Your task to perform on an android device: Open Maps and search for coffee Image 0: 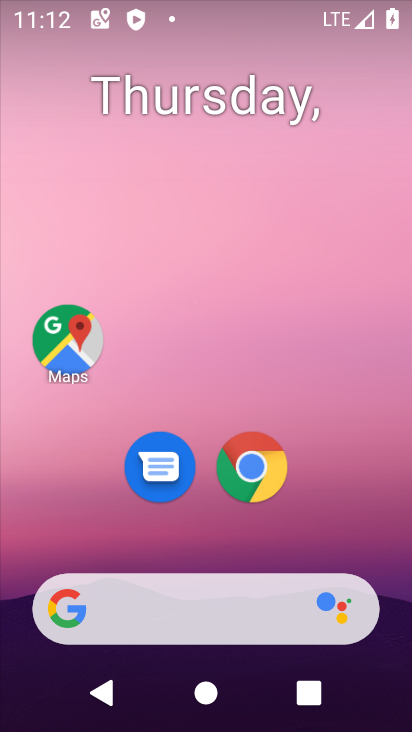
Step 0: click (73, 344)
Your task to perform on an android device: Open Maps and search for coffee Image 1: 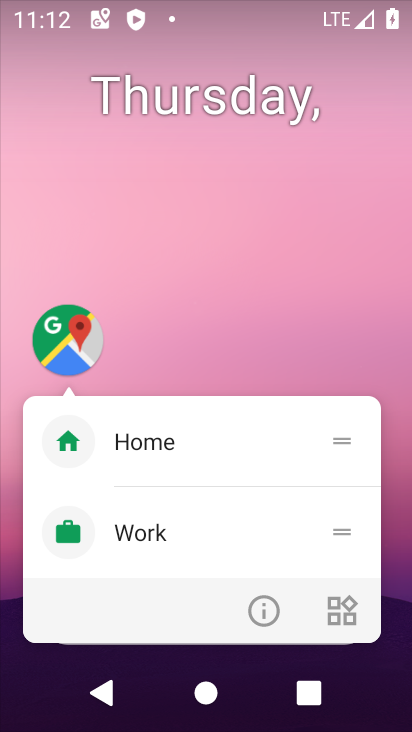
Step 1: click (69, 341)
Your task to perform on an android device: Open Maps and search for coffee Image 2: 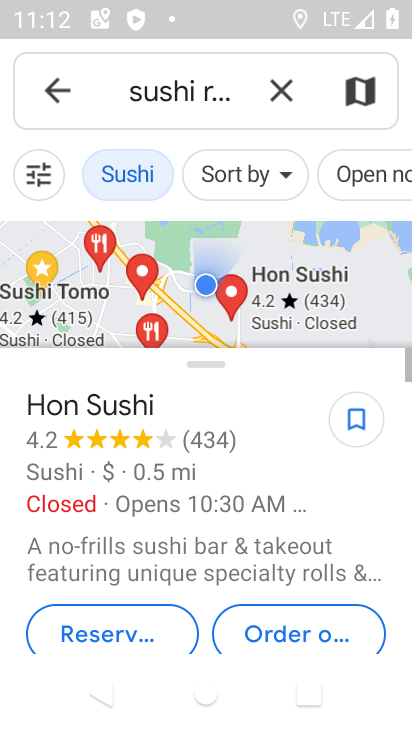
Step 2: click (282, 93)
Your task to perform on an android device: Open Maps and search for coffee Image 3: 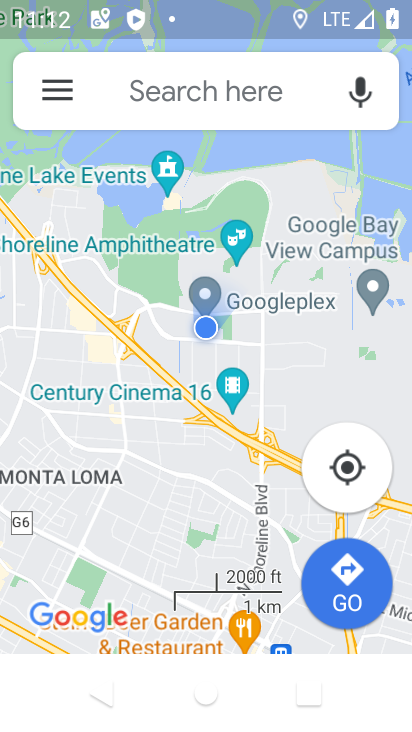
Step 3: click (150, 96)
Your task to perform on an android device: Open Maps and search for coffee Image 4: 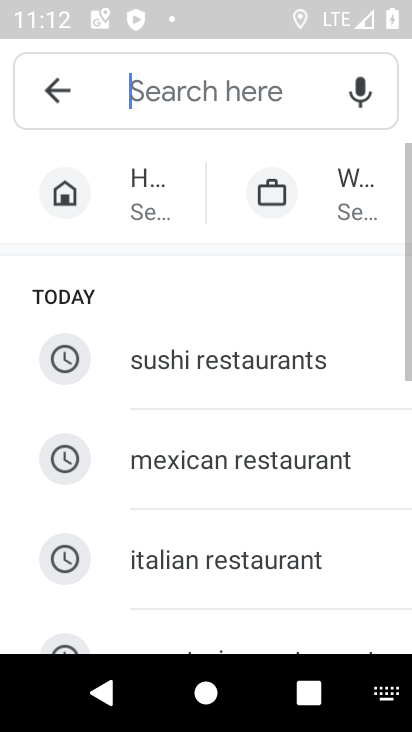
Step 4: drag from (204, 524) to (284, 106)
Your task to perform on an android device: Open Maps and search for coffee Image 5: 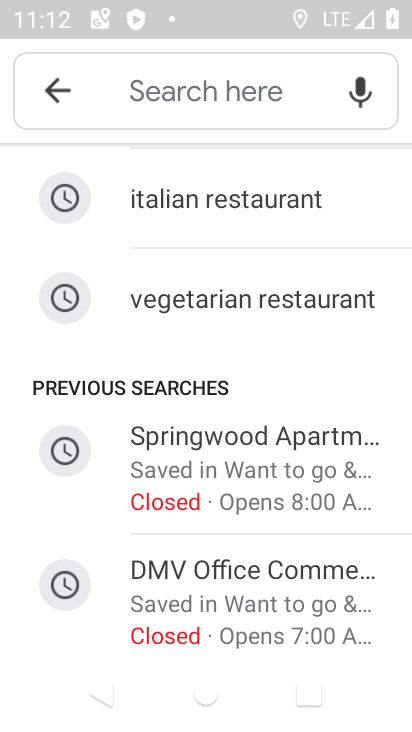
Step 5: drag from (245, 195) to (179, 670)
Your task to perform on an android device: Open Maps and search for coffee Image 6: 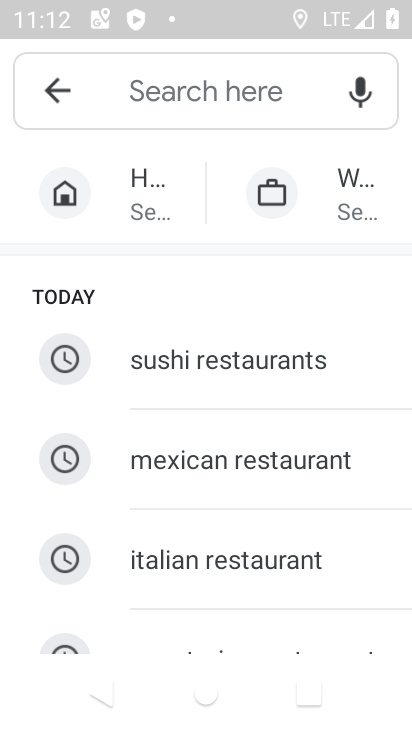
Step 6: click (164, 96)
Your task to perform on an android device: Open Maps and search for coffee Image 7: 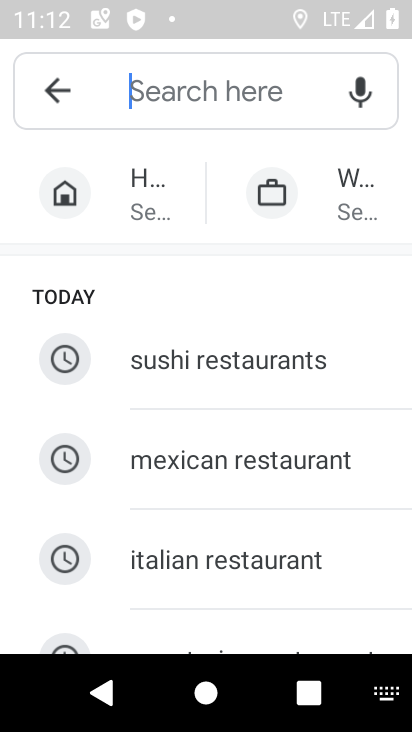
Step 7: type "coffee"
Your task to perform on an android device: Open Maps and search for coffee Image 8: 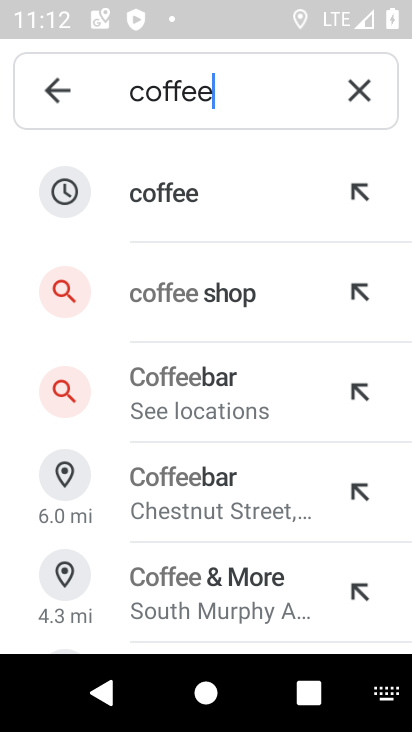
Step 8: click (172, 182)
Your task to perform on an android device: Open Maps and search for coffee Image 9: 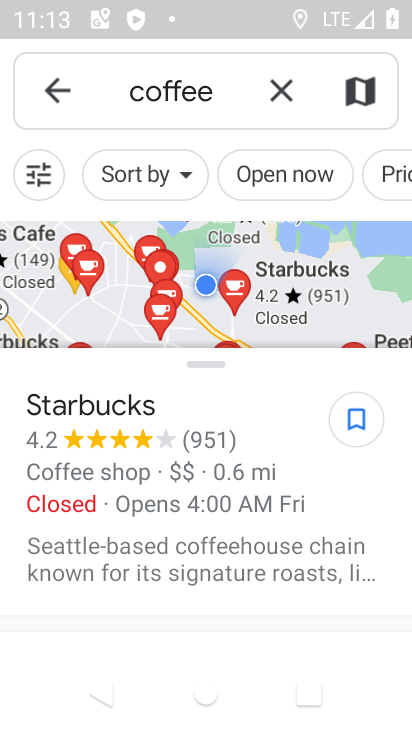
Step 9: task complete